Your task to perform on an android device: Open calendar and show me the second week of next month Image 0: 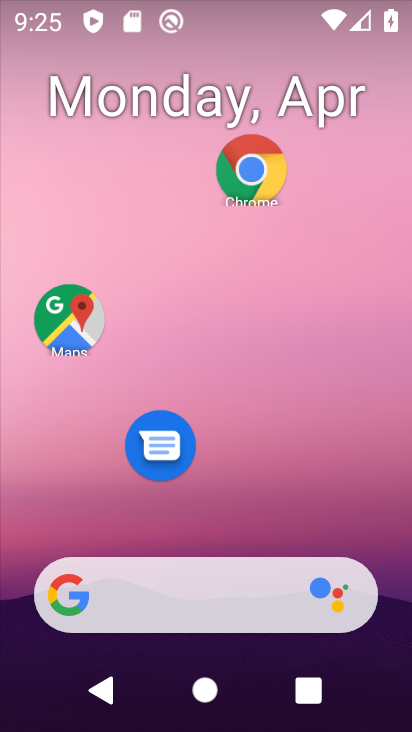
Step 0: drag from (262, 524) to (262, 219)
Your task to perform on an android device: Open calendar and show me the second week of next month Image 1: 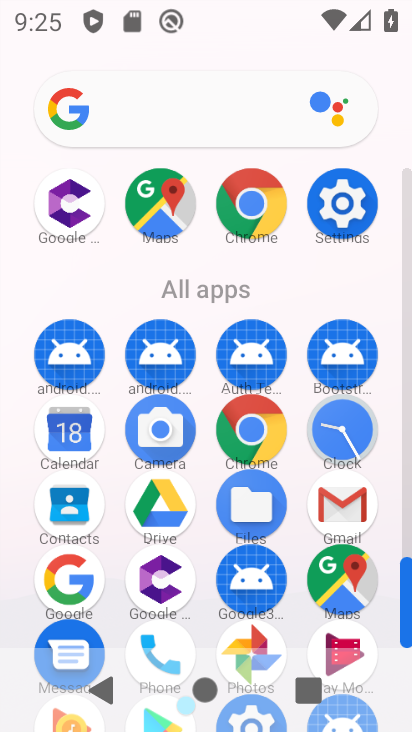
Step 1: click (81, 431)
Your task to perform on an android device: Open calendar and show me the second week of next month Image 2: 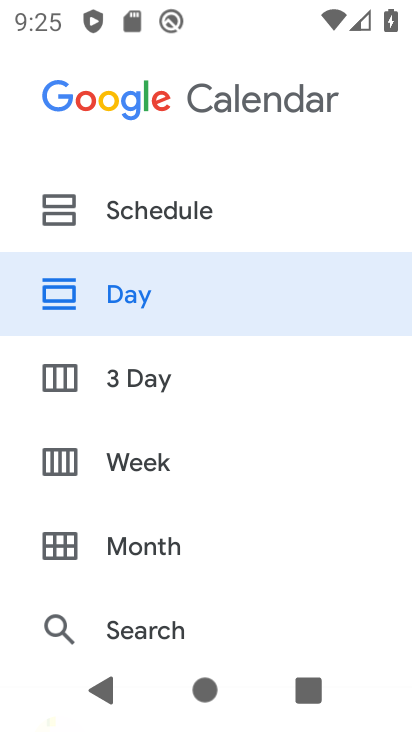
Step 2: click (108, 687)
Your task to perform on an android device: Open calendar and show me the second week of next month Image 3: 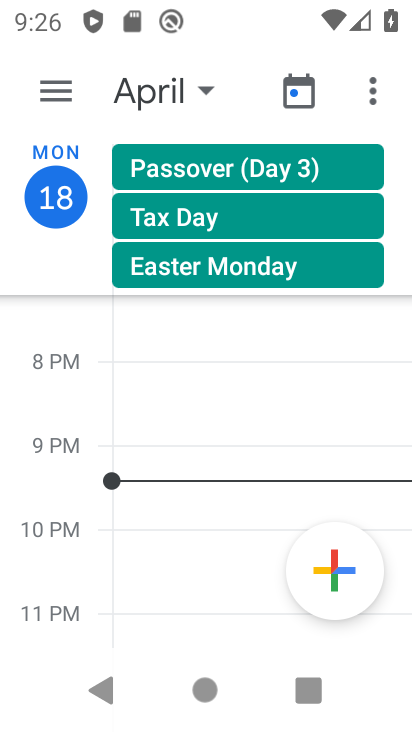
Step 3: click (200, 87)
Your task to perform on an android device: Open calendar and show me the second week of next month Image 4: 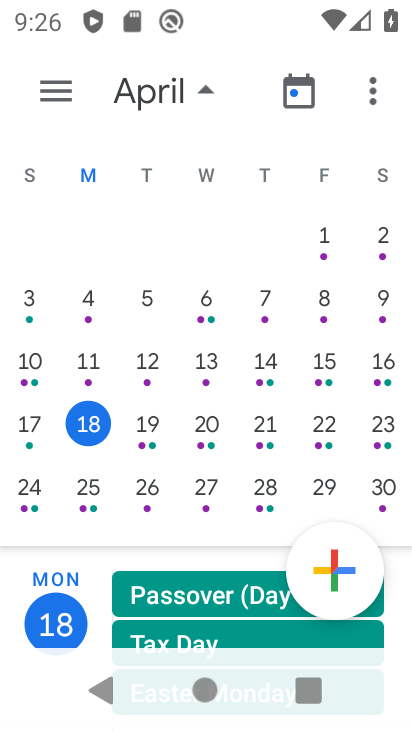
Step 4: drag from (353, 364) to (2, 435)
Your task to perform on an android device: Open calendar and show me the second week of next month Image 5: 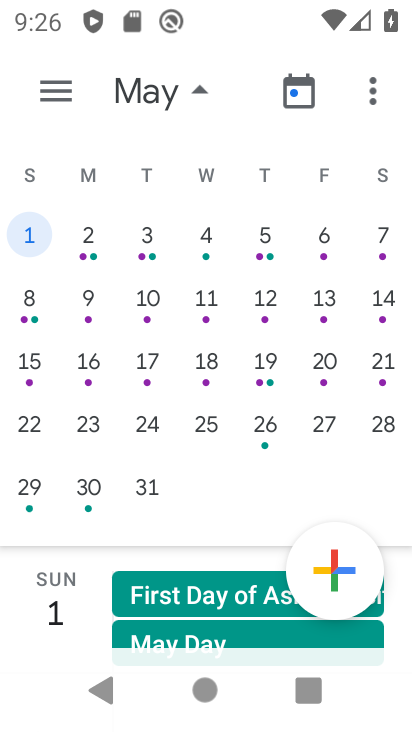
Step 5: click (80, 304)
Your task to perform on an android device: Open calendar and show me the second week of next month Image 6: 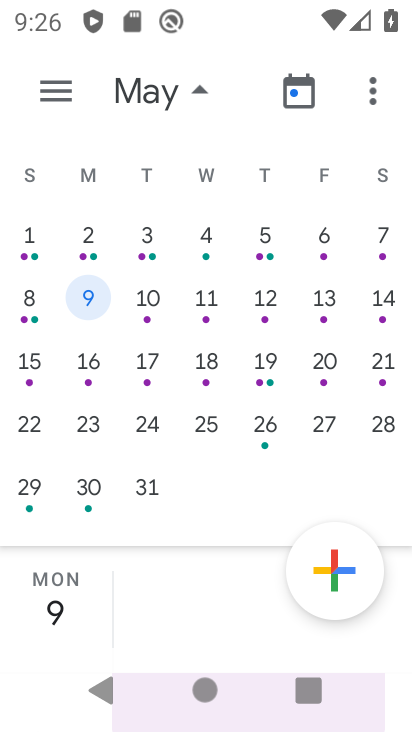
Step 6: task complete